Your task to perform on an android device: What's the weather? Image 0: 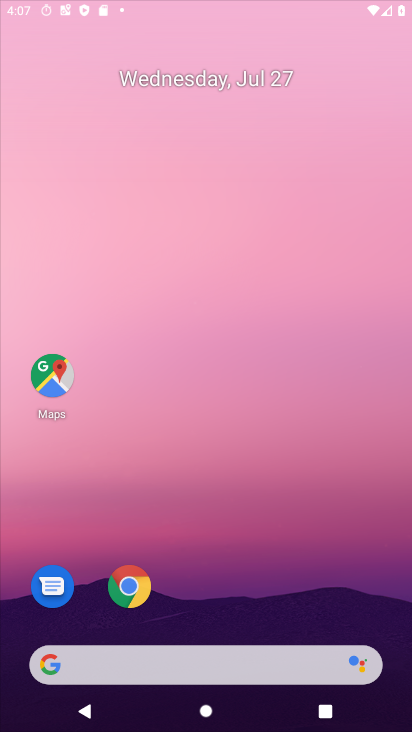
Step 0: press home button
Your task to perform on an android device: What's the weather? Image 1: 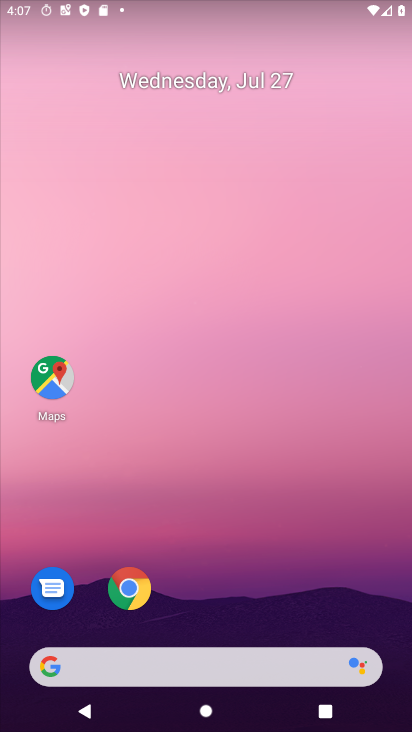
Step 1: click (48, 673)
Your task to perform on an android device: What's the weather? Image 2: 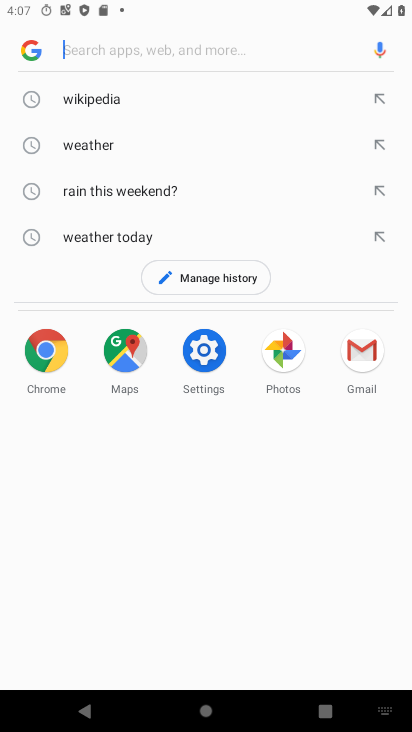
Step 2: click (88, 143)
Your task to perform on an android device: What's the weather? Image 3: 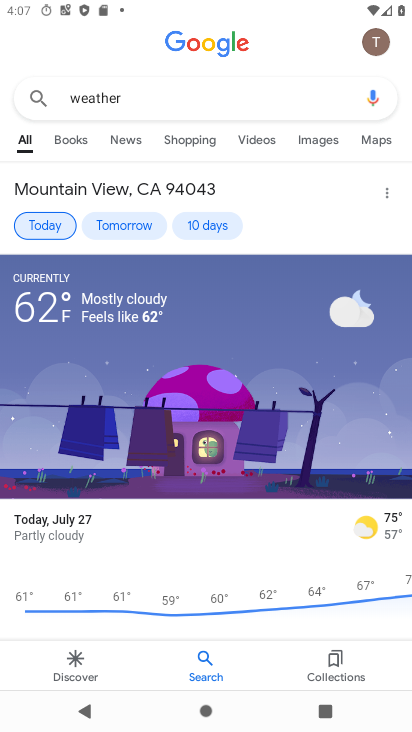
Step 3: task complete